Your task to perform on an android device: Open Android settings Image 0: 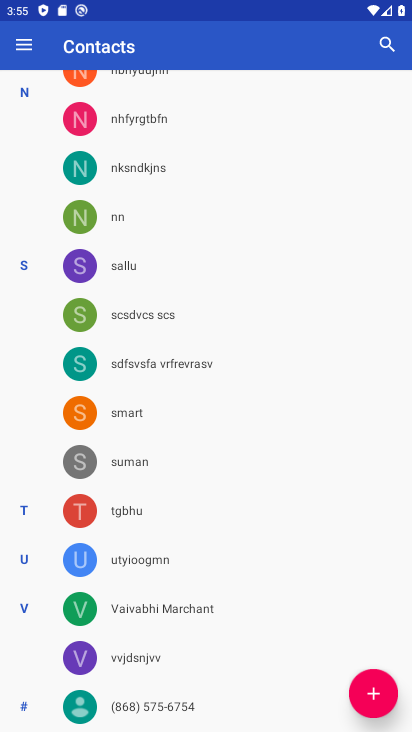
Step 0: press home button
Your task to perform on an android device: Open Android settings Image 1: 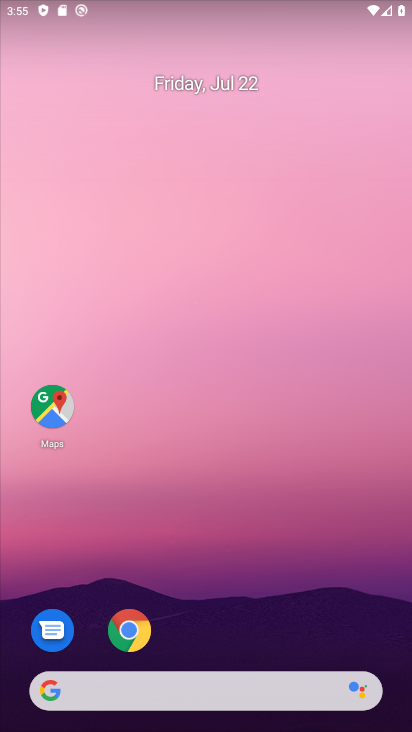
Step 1: drag from (293, 653) to (275, 0)
Your task to perform on an android device: Open Android settings Image 2: 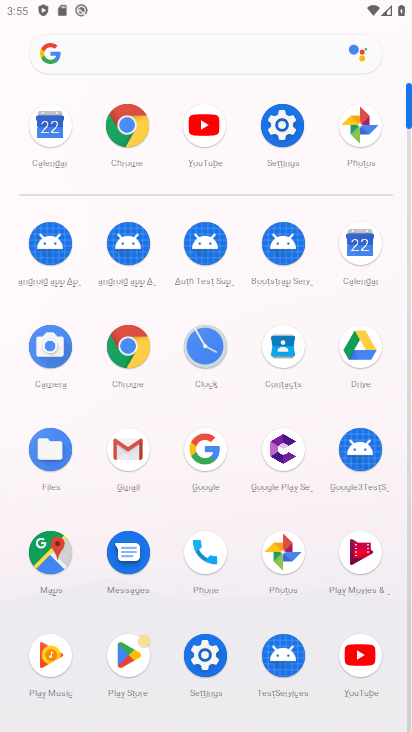
Step 2: click (210, 668)
Your task to perform on an android device: Open Android settings Image 3: 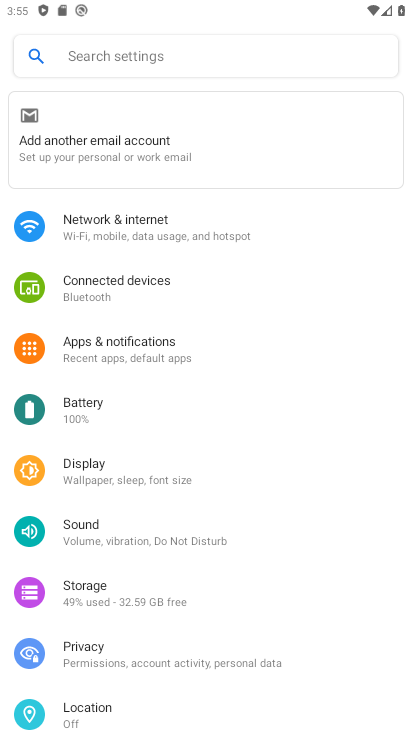
Step 3: drag from (135, 656) to (91, 15)
Your task to perform on an android device: Open Android settings Image 4: 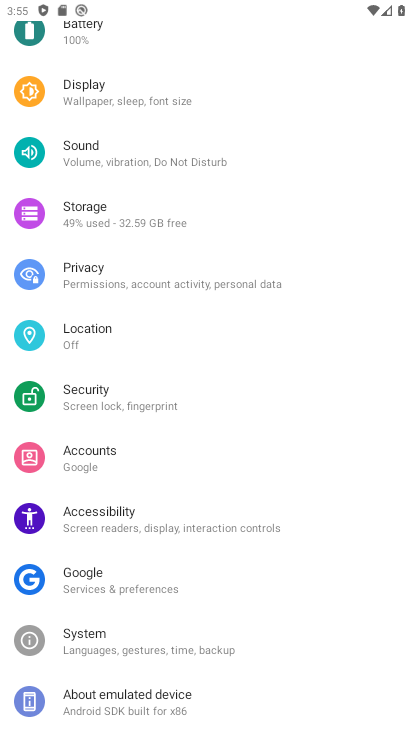
Step 4: click (136, 705)
Your task to perform on an android device: Open Android settings Image 5: 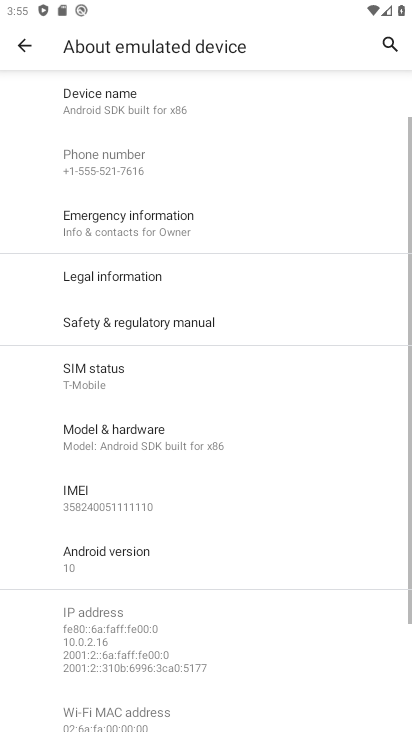
Step 5: click (121, 566)
Your task to perform on an android device: Open Android settings Image 6: 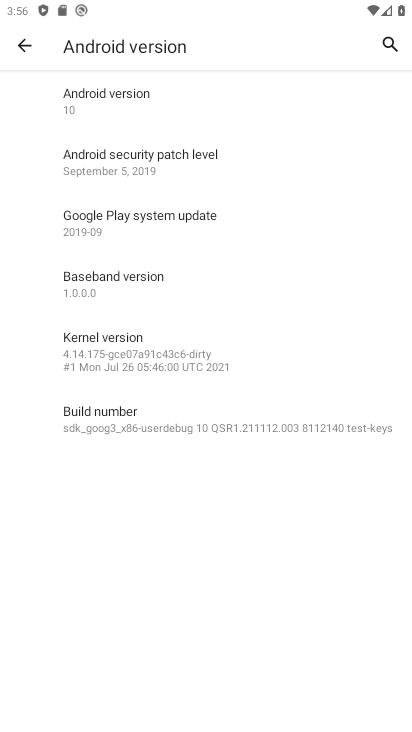
Step 6: task complete